Your task to perform on an android device: visit the assistant section in the google photos Image 0: 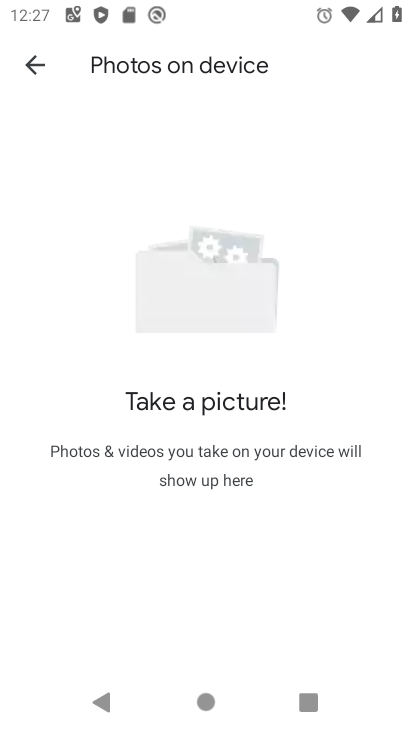
Step 0: press home button
Your task to perform on an android device: visit the assistant section in the google photos Image 1: 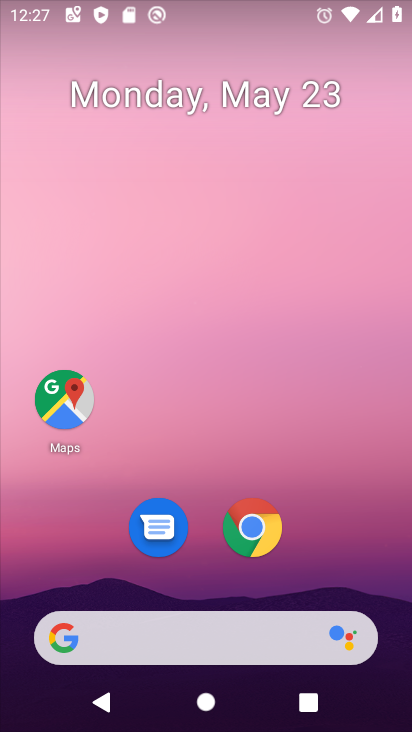
Step 1: drag from (345, 526) to (292, 26)
Your task to perform on an android device: visit the assistant section in the google photos Image 2: 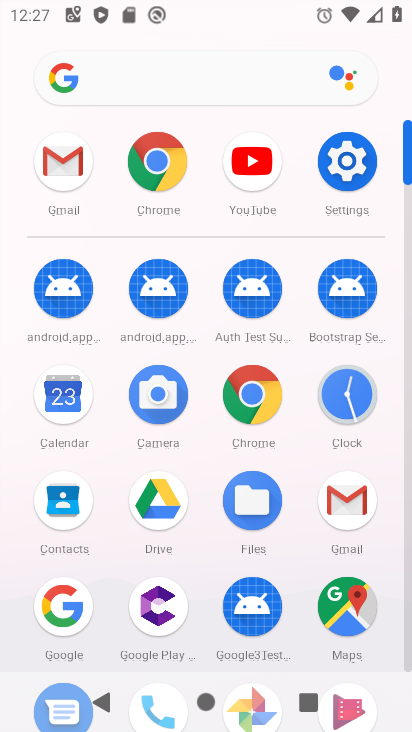
Step 2: click (343, 591)
Your task to perform on an android device: visit the assistant section in the google photos Image 3: 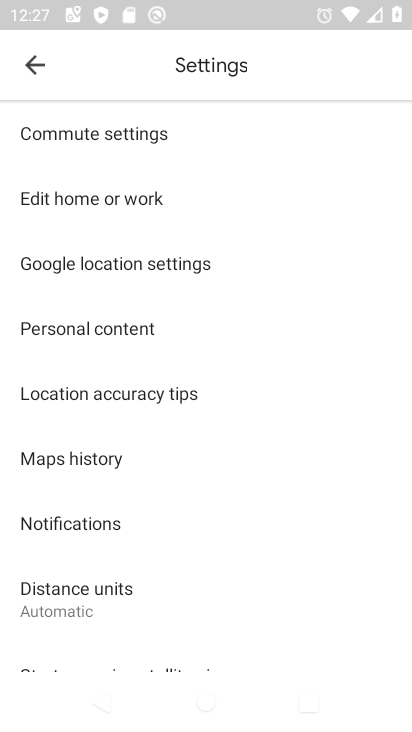
Step 3: task complete